Your task to perform on an android device: Open Google Chrome and open the bookmarks view Image 0: 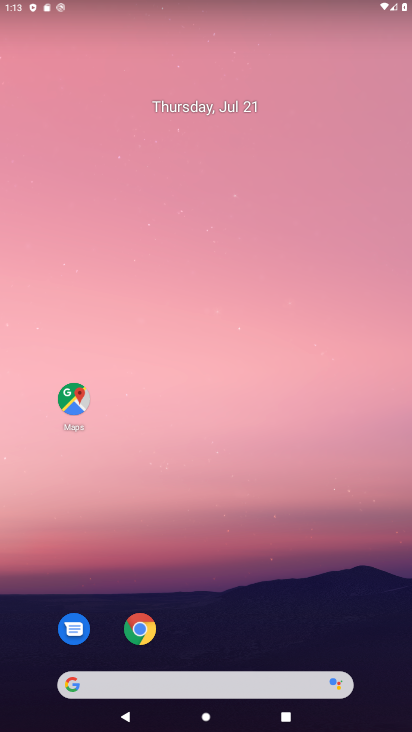
Step 0: click (131, 635)
Your task to perform on an android device: Open Google Chrome and open the bookmarks view Image 1: 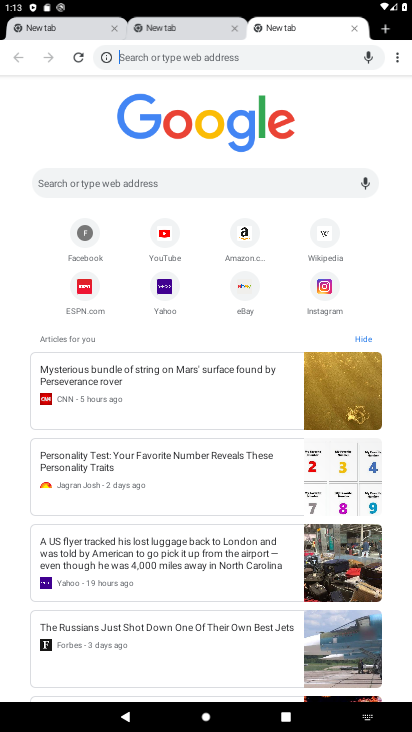
Step 1: click (392, 54)
Your task to perform on an android device: Open Google Chrome and open the bookmarks view Image 2: 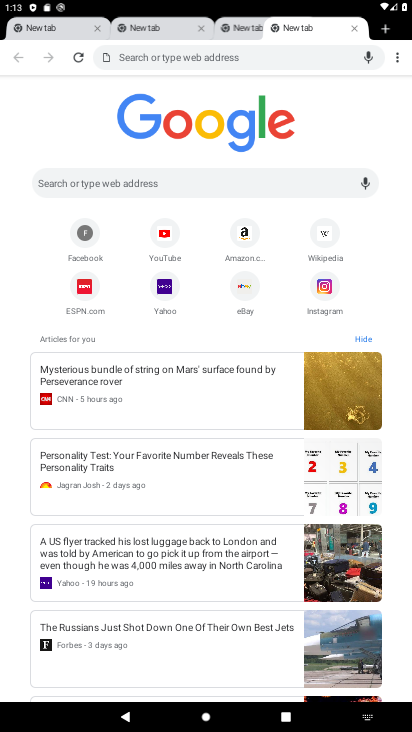
Step 2: click (384, 61)
Your task to perform on an android device: Open Google Chrome and open the bookmarks view Image 3: 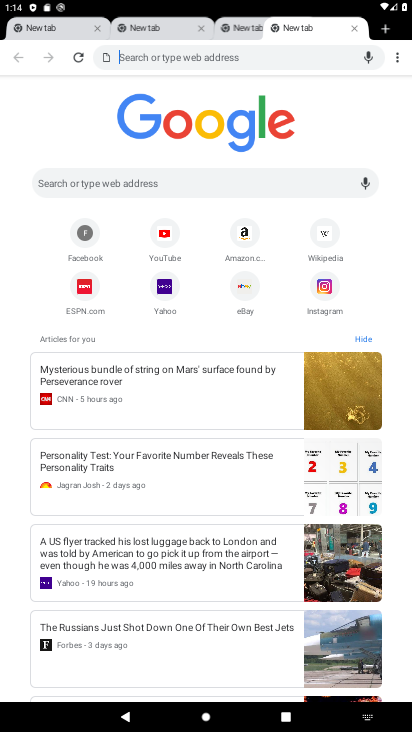
Step 3: click (395, 56)
Your task to perform on an android device: Open Google Chrome and open the bookmarks view Image 4: 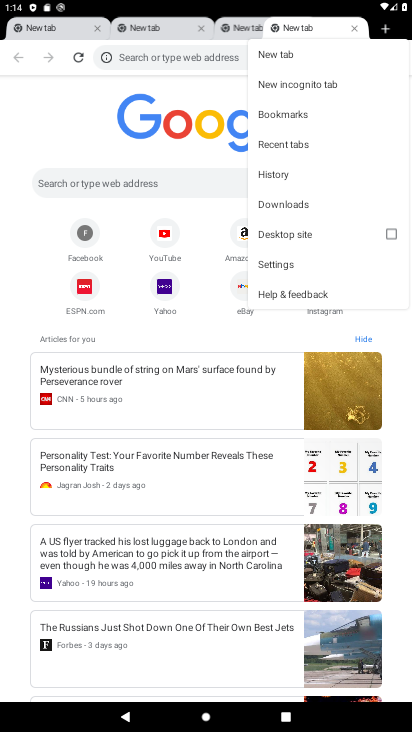
Step 4: click (276, 118)
Your task to perform on an android device: Open Google Chrome and open the bookmarks view Image 5: 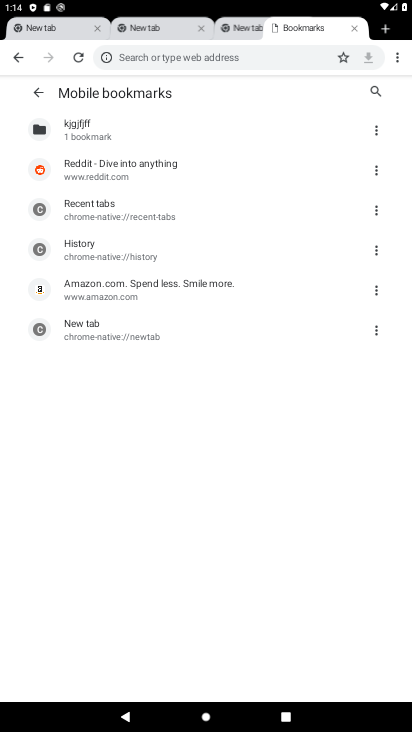
Step 5: task complete